Your task to perform on an android device: open app "eBay: The shopping marketplace" Image 0: 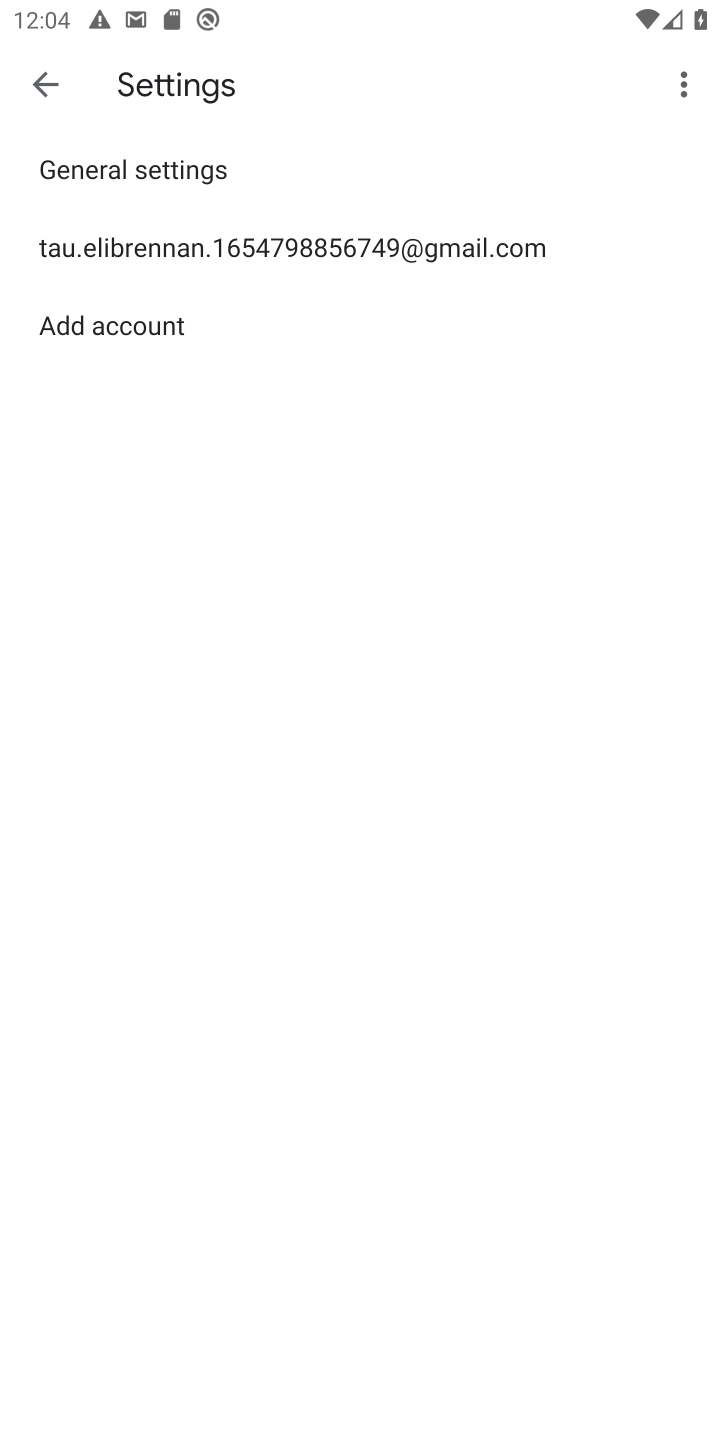
Step 0: press home button
Your task to perform on an android device: open app "eBay: The shopping marketplace" Image 1: 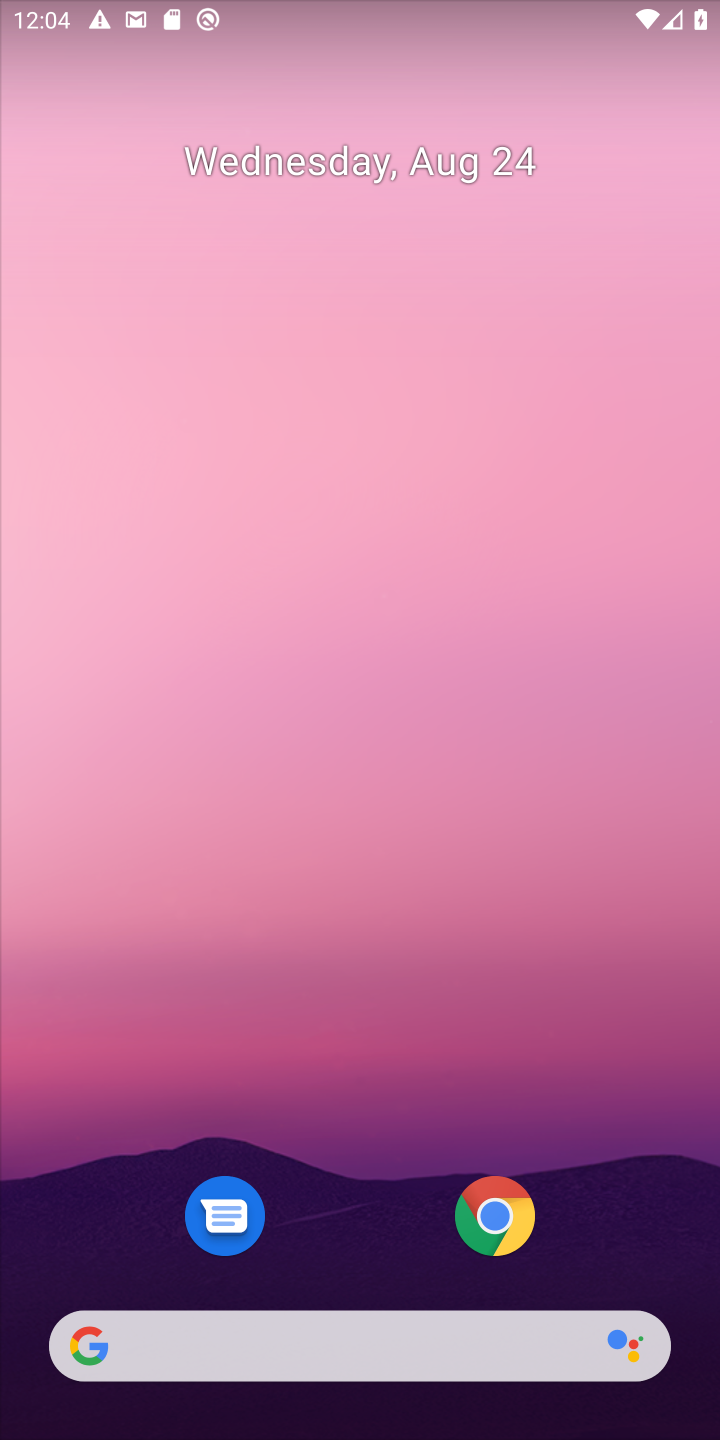
Step 1: drag from (326, 1295) to (413, 172)
Your task to perform on an android device: open app "eBay: The shopping marketplace" Image 2: 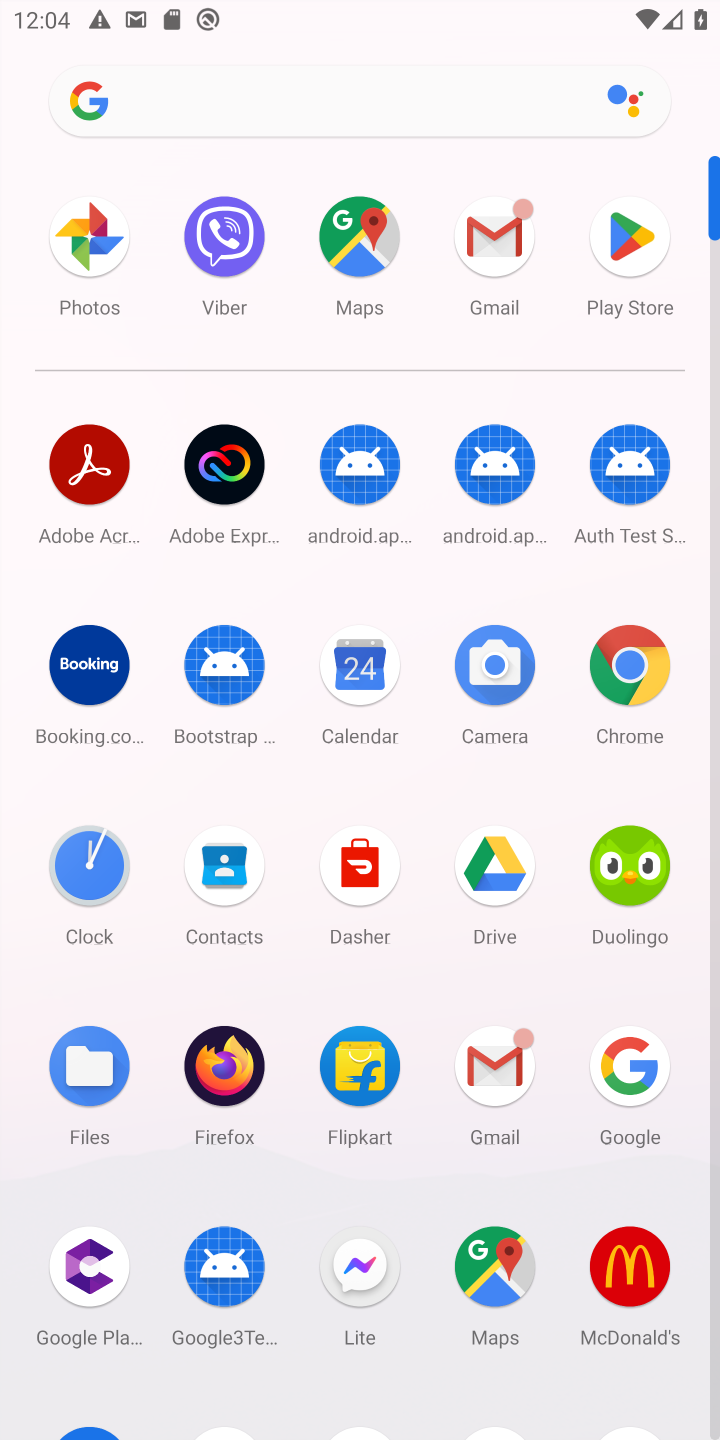
Step 2: click (630, 245)
Your task to perform on an android device: open app "eBay: The shopping marketplace" Image 3: 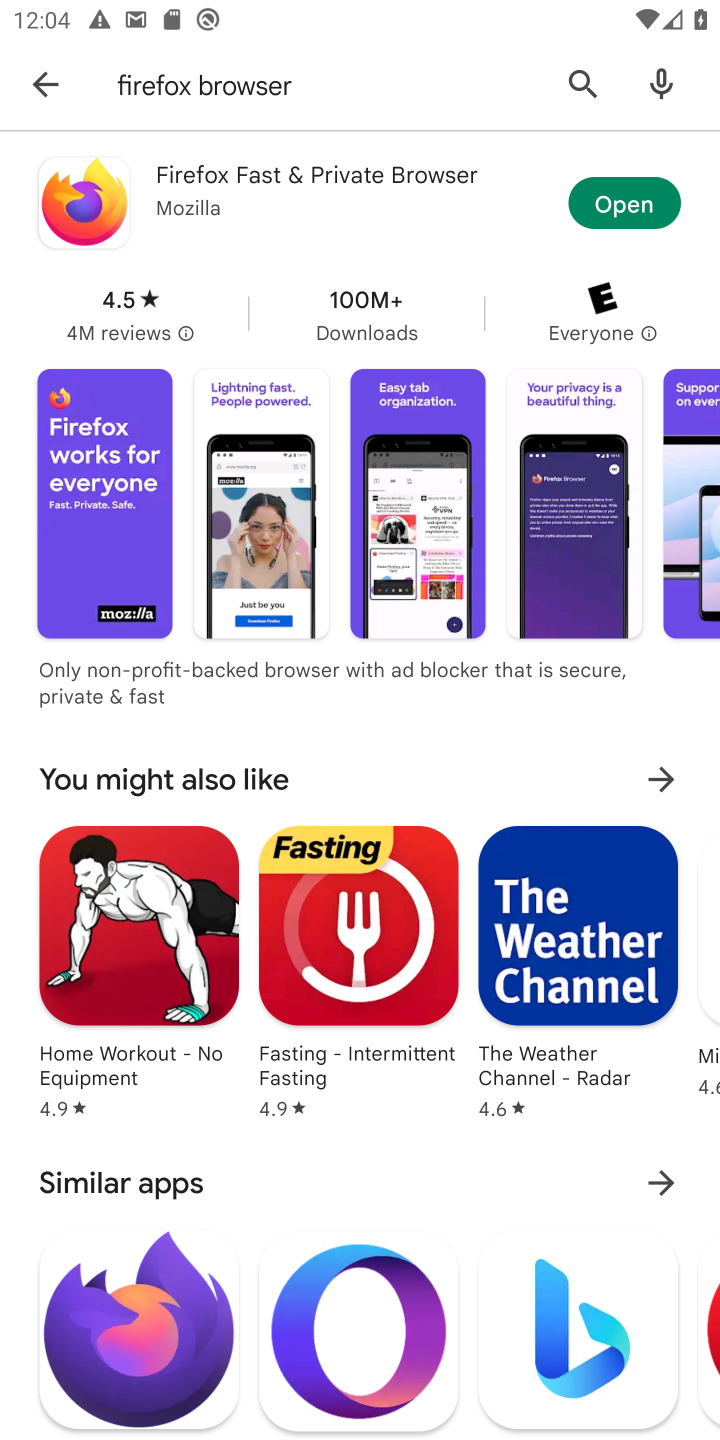
Step 3: press back button
Your task to perform on an android device: open app "eBay: The shopping marketplace" Image 4: 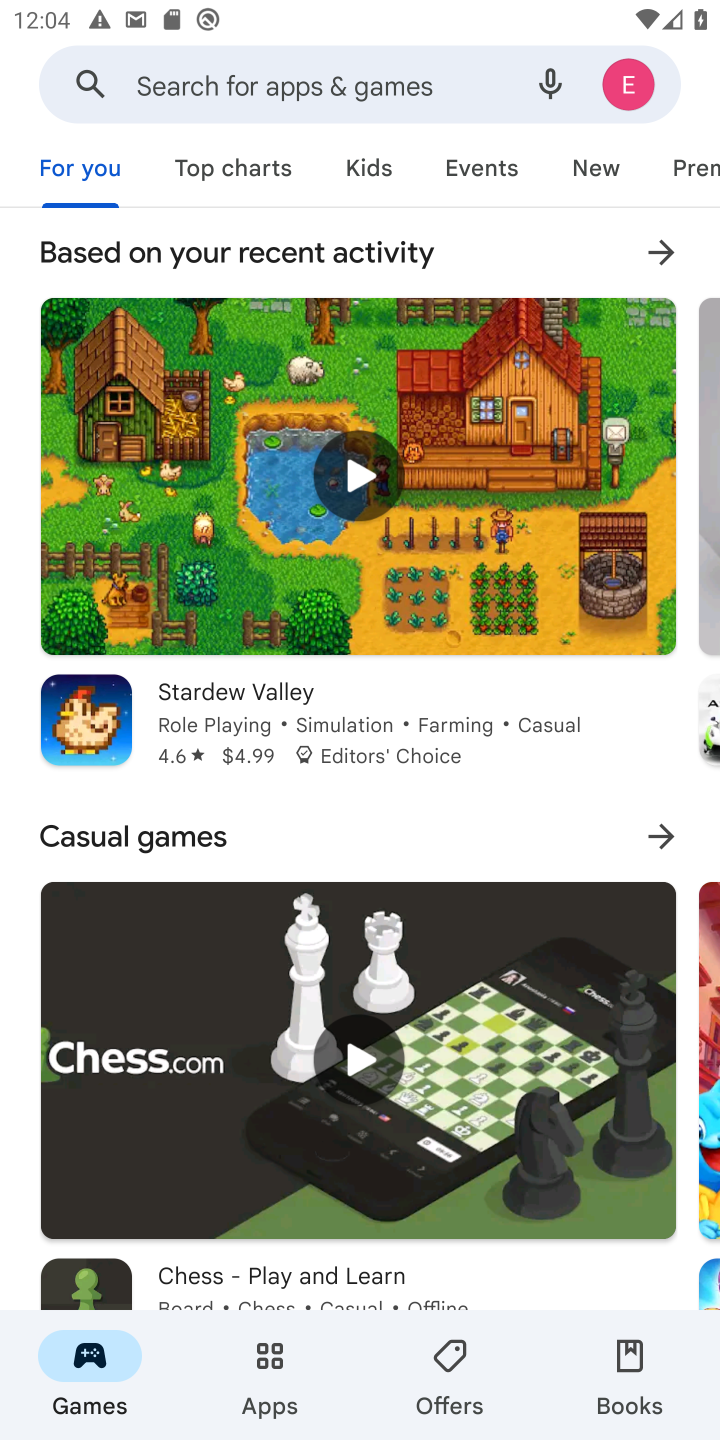
Step 4: click (385, 77)
Your task to perform on an android device: open app "eBay: The shopping marketplace" Image 5: 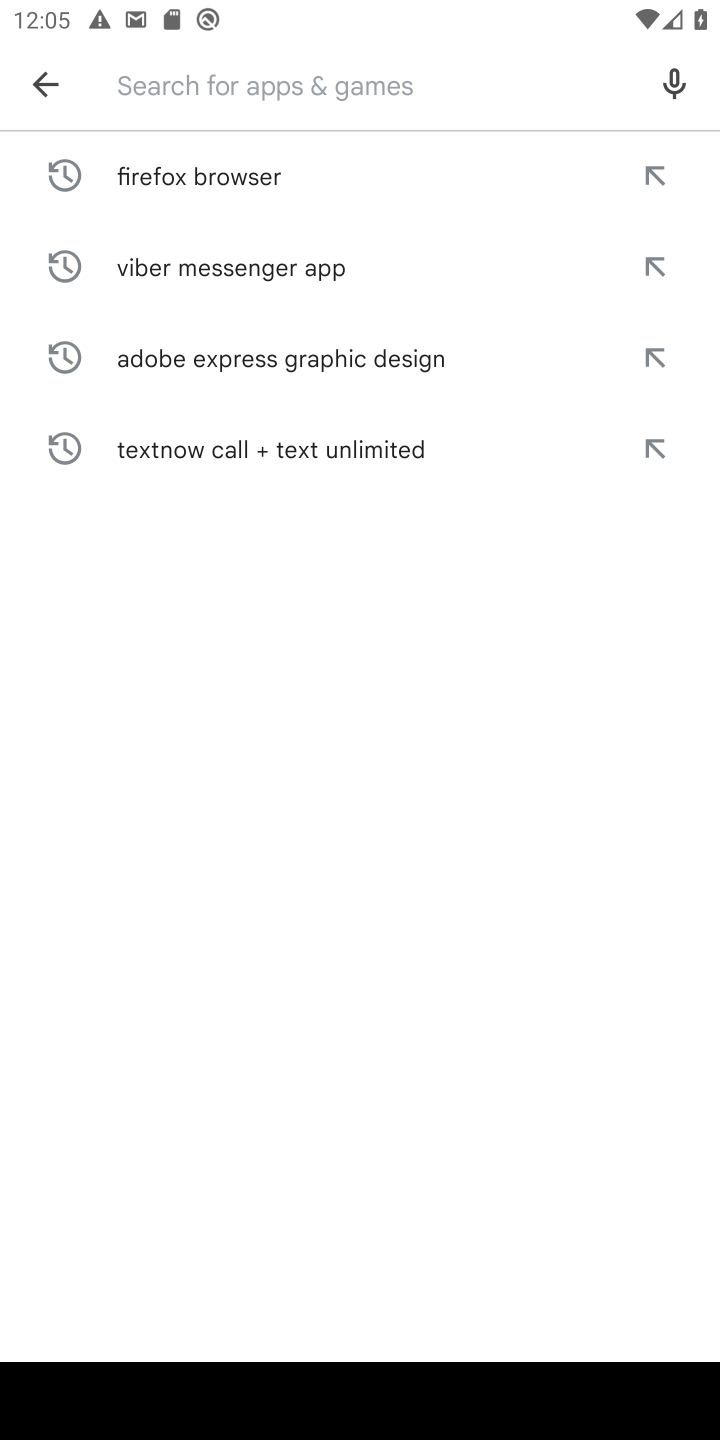
Step 5: click (301, 75)
Your task to perform on an android device: open app "eBay: The shopping marketplace" Image 6: 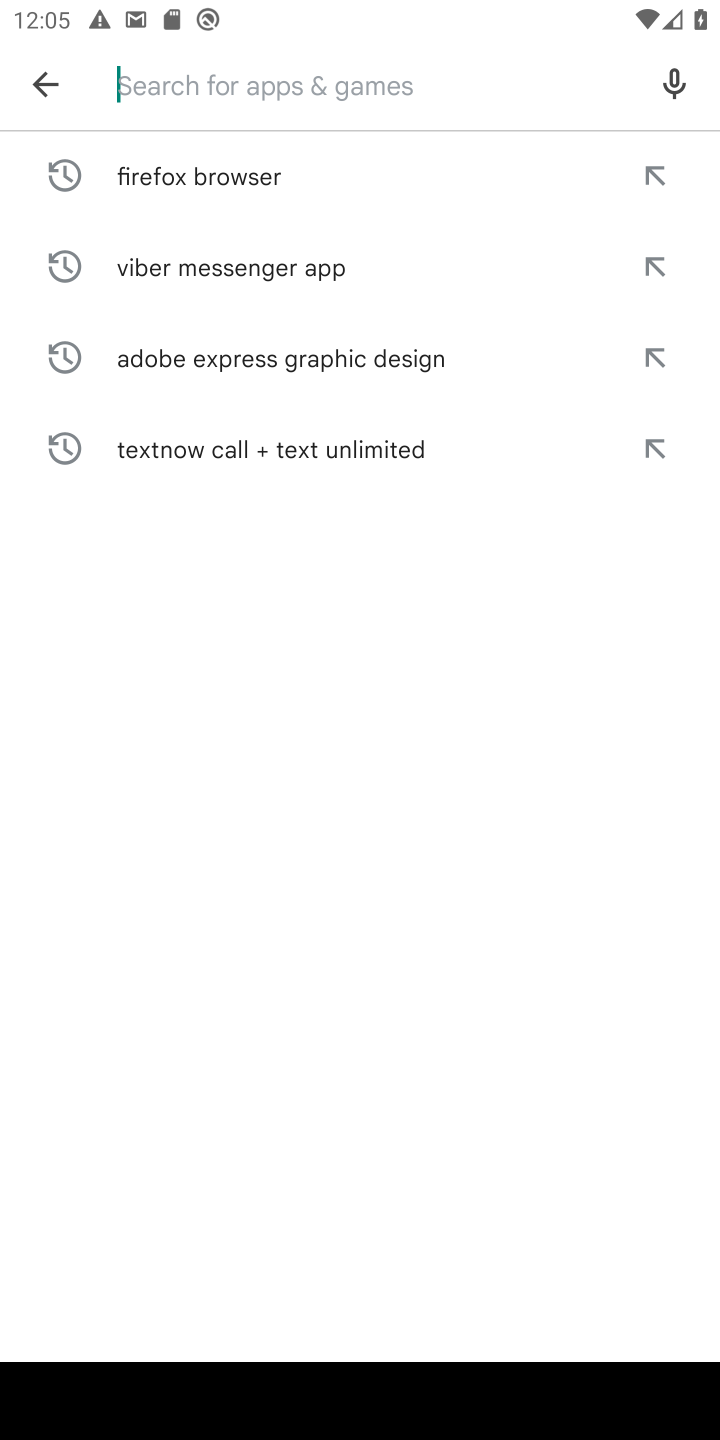
Step 6: type "eBay: The shopping marketplace"
Your task to perform on an android device: open app "eBay: The shopping marketplace" Image 7: 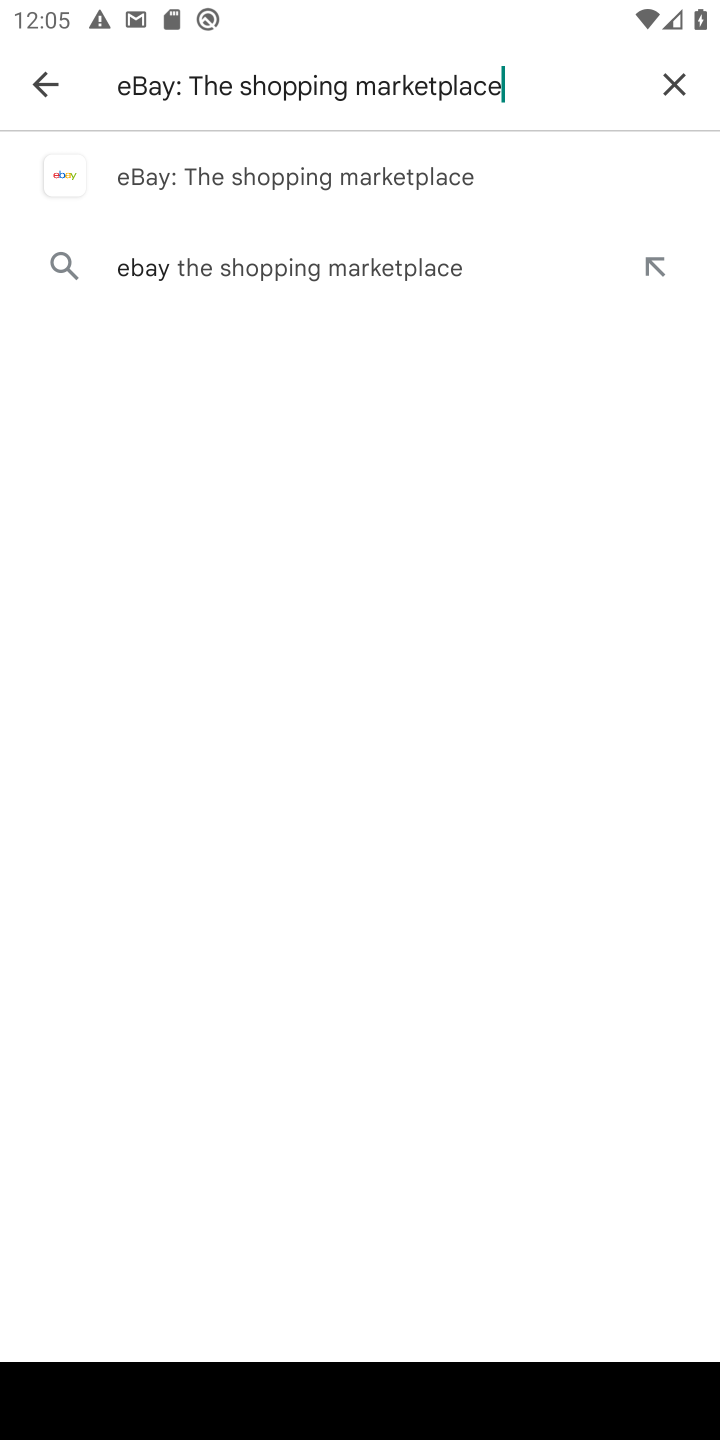
Step 7: click (325, 178)
Your task to perform on an android device: open app "eBay: The shopping marketplace" Image 8: 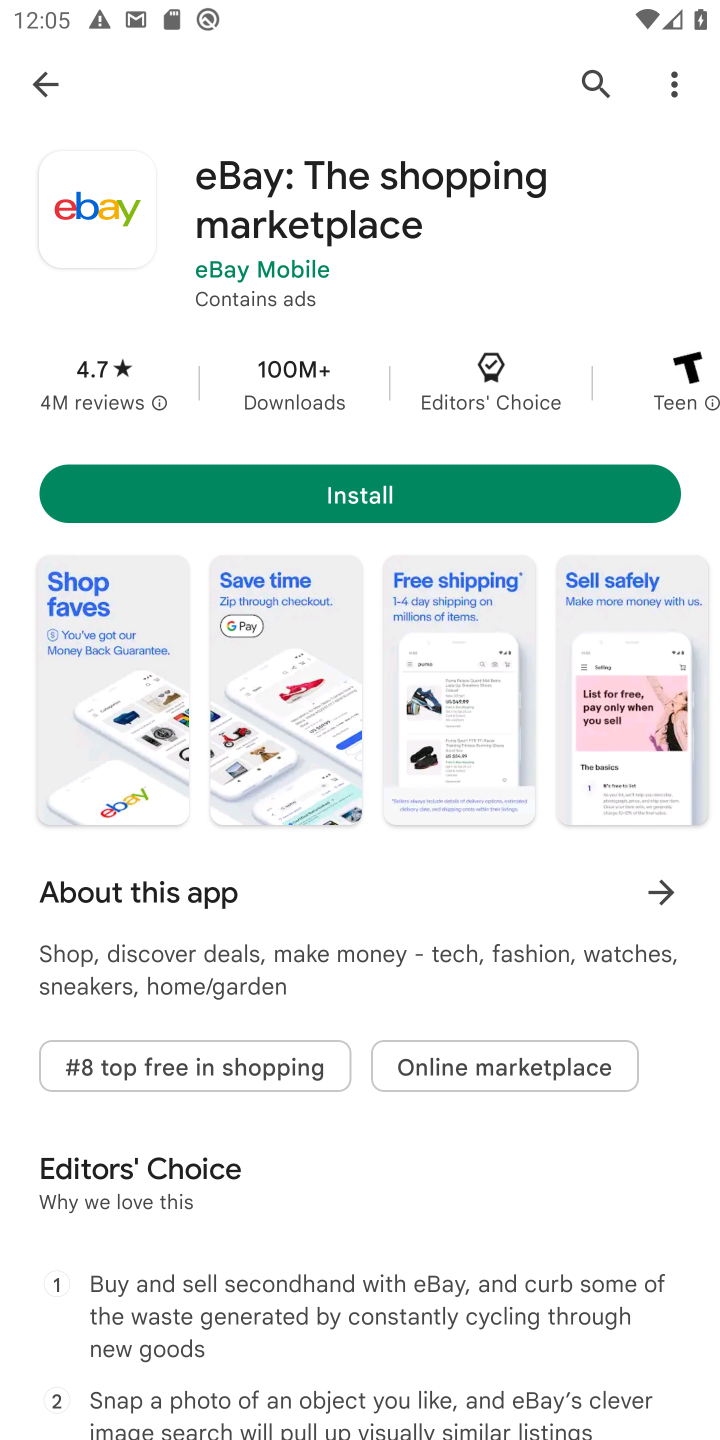
Step 8: task complete